Your task to perform on an android device: Open the calendar and show me this week's events Image 0: 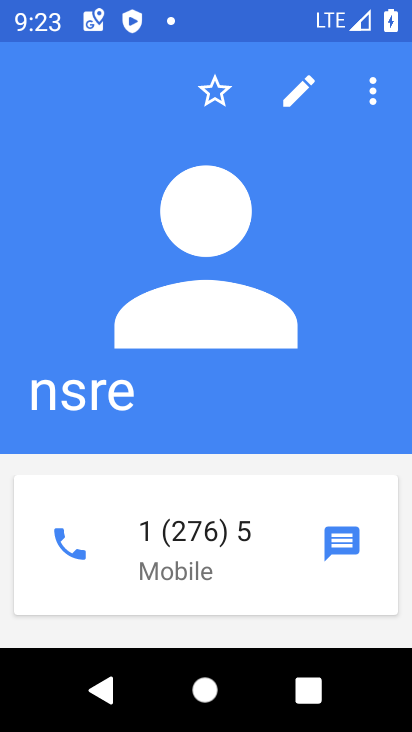
Step 0: press home button
Your task to perform on an android device: Open the calendar and show me this week's events Image 1: 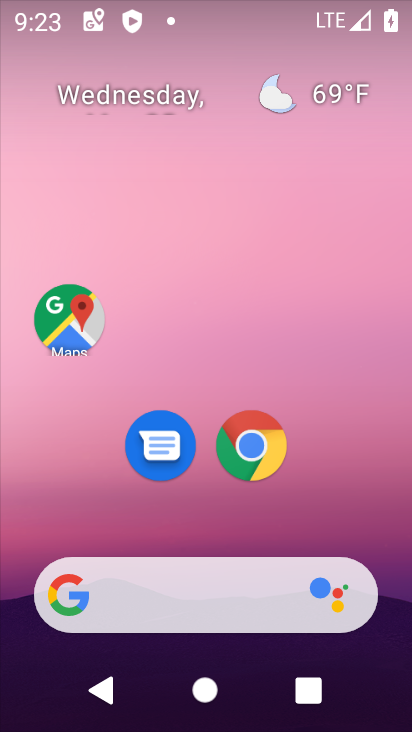
Step 1: drag from (327, 534) to (343, 86)
Your task to perform on an android device: Open the calendar and show me this week's events Image 2: 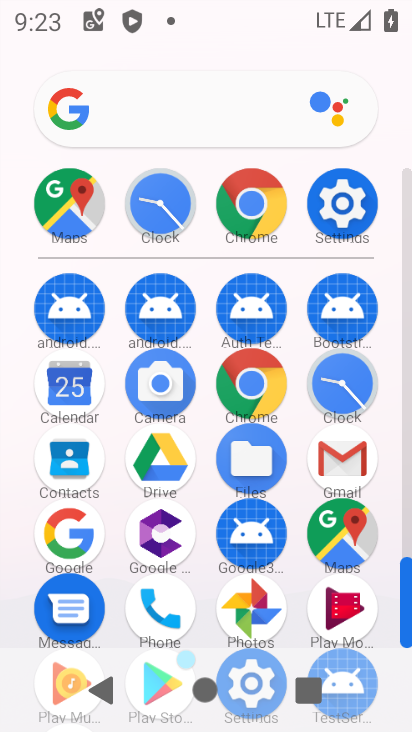
Step 2: click (71, 376)
Your task to perform on an android device: Open the calendar and show me this week's events Image 3: 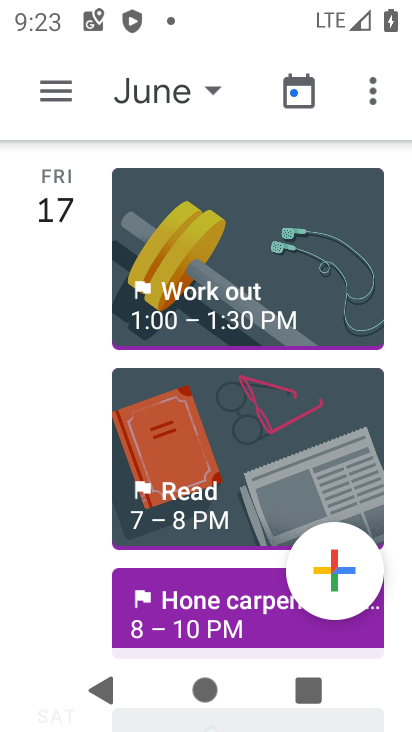
Step 3: click (167, 92)
Your task to perform on an android device: Open the calendar and show me this week's events Image 4: 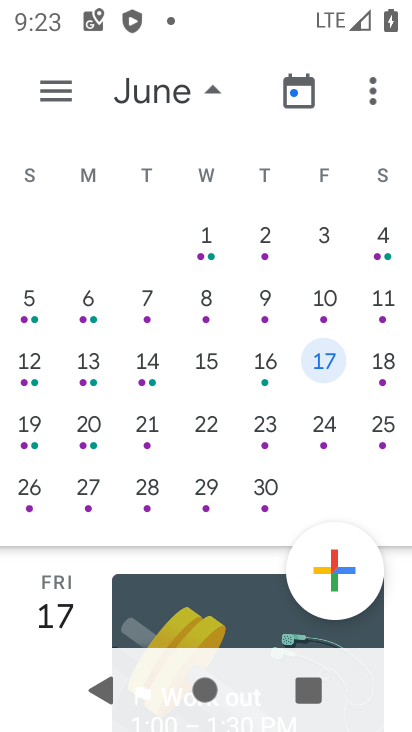
Step 4: drag from (107, 339) to (374, 330)
Your task to perform on an android device: Open the calendar and show me this week's events Image 5: 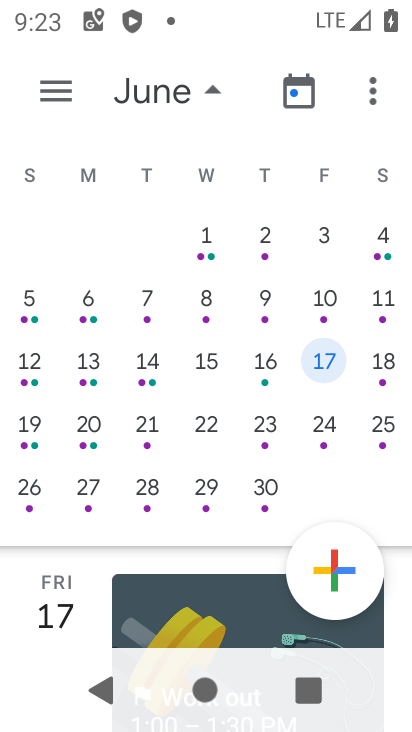
Step 5: drag from (56, 339) to (367, 354)
Your task to perform on an android device: Open the calendar and show me this week's events Image 6: 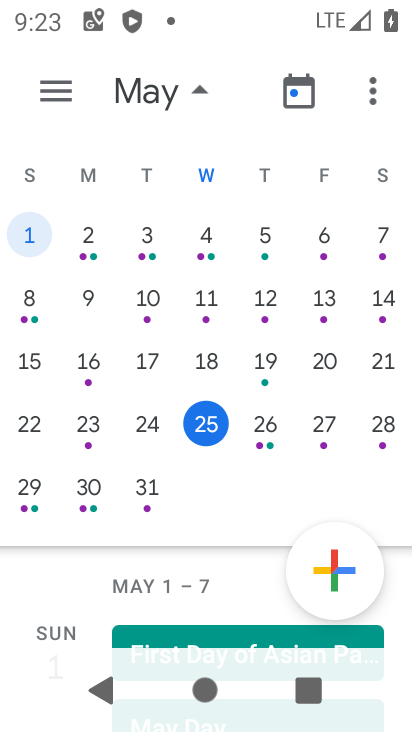
Step 6: click (261, 429)
Your task to perform on an android device: Open the calendar and show me this week's events Image 7: 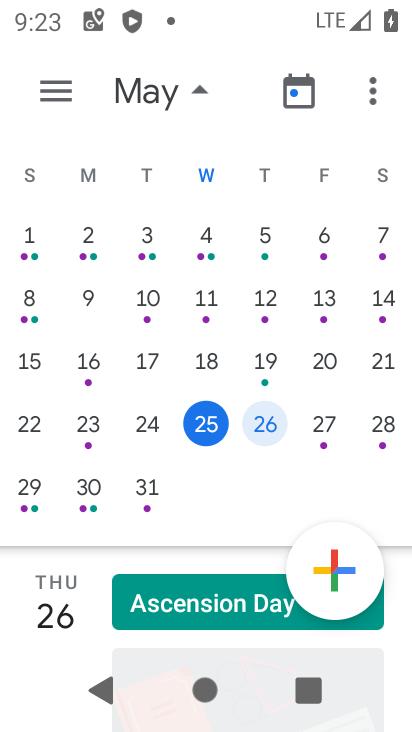
Step 7: task complete